Your task to perform on an android device: toggle improve location accuracy Image 0: 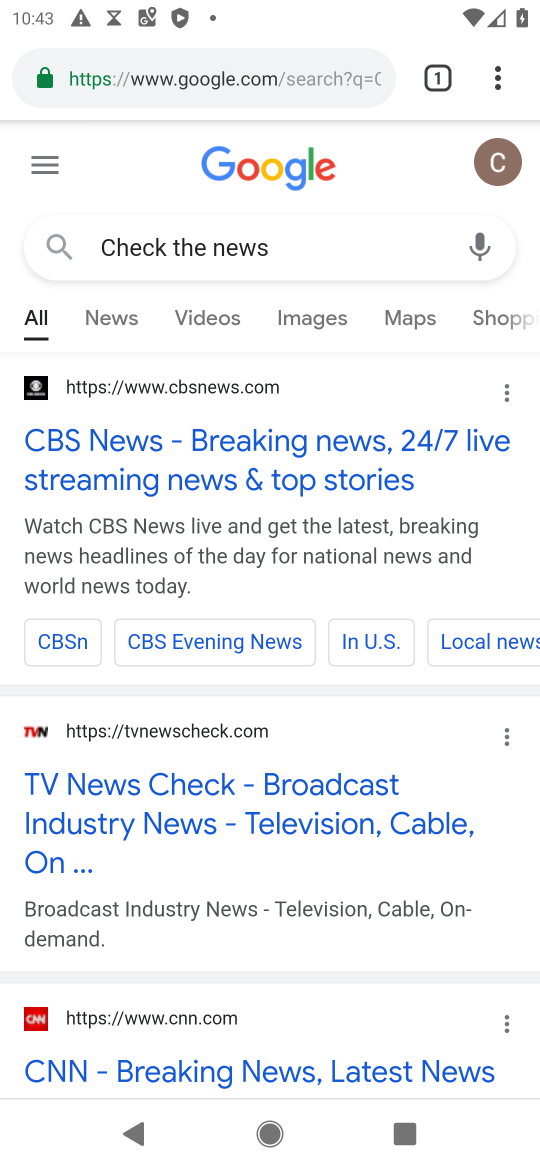
Step 0: press home button
Your task to perform on an android device: toggle improve location accuracy Image 1: 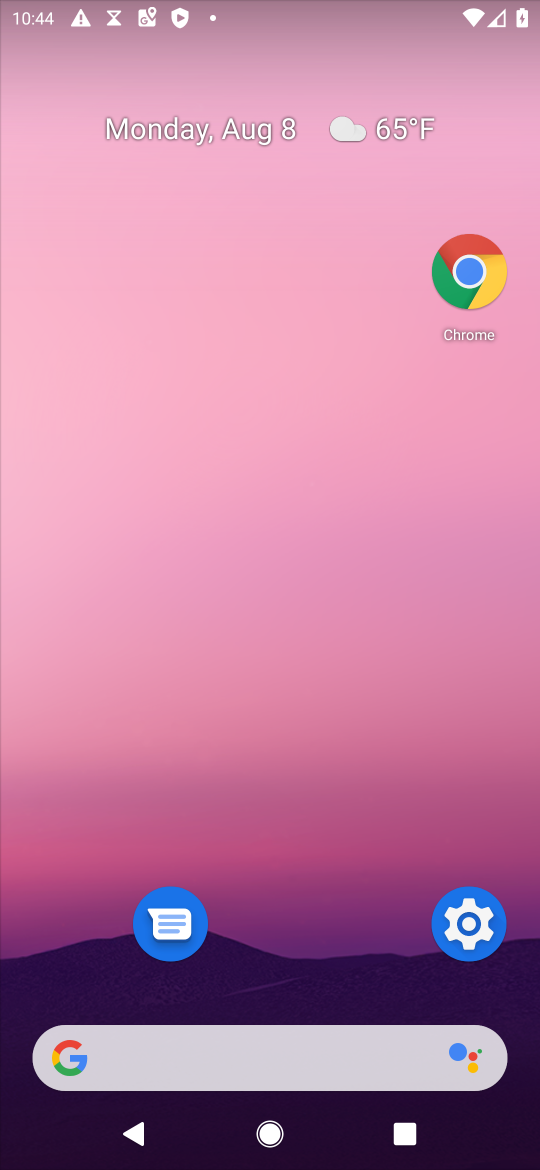
Step 1: drag from (330, 907) to (277, 469)
Your task to perform on an android device: toggle improve location accuracy Image 2: 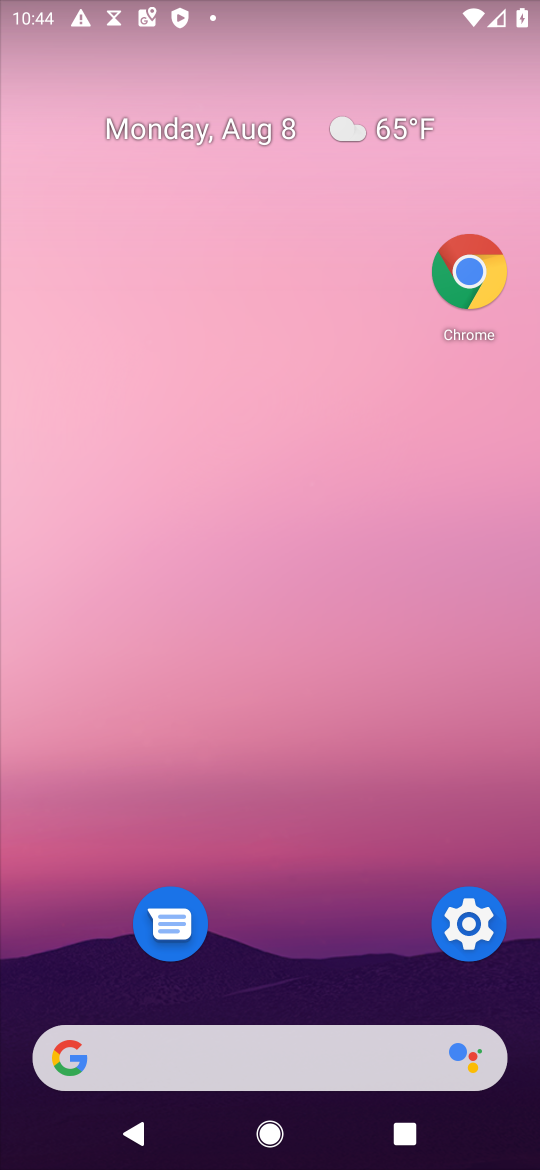
Step 2: drag from (298, 782) to (374, 110)
Your task to perform on an android device: toggle improve location accuracy Image 3: 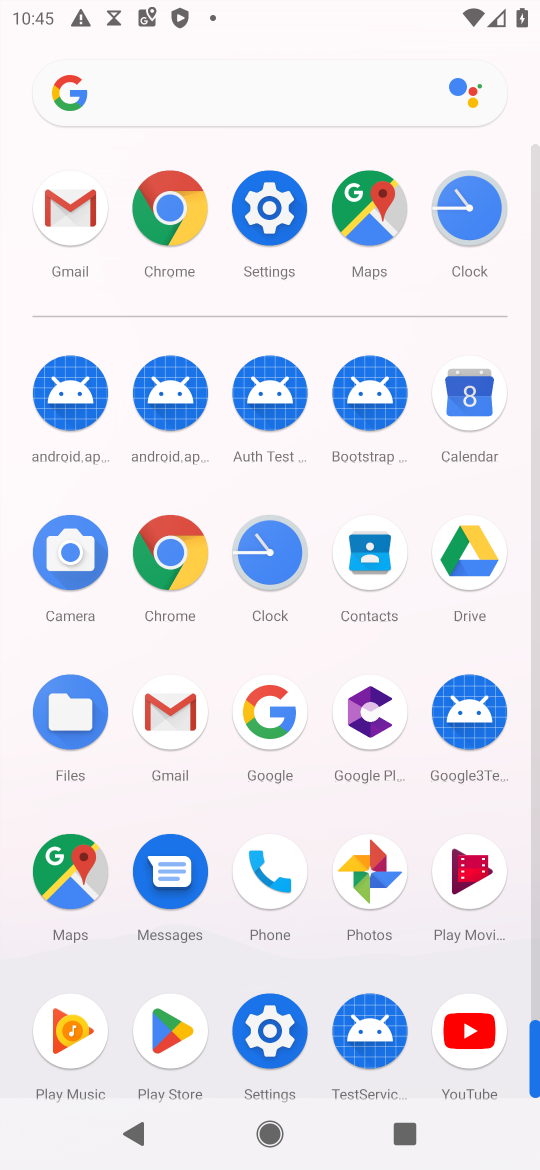
Step 3: click (234, 251)
Your task to perform on an android device: toggle improve location accuracy Image 4: 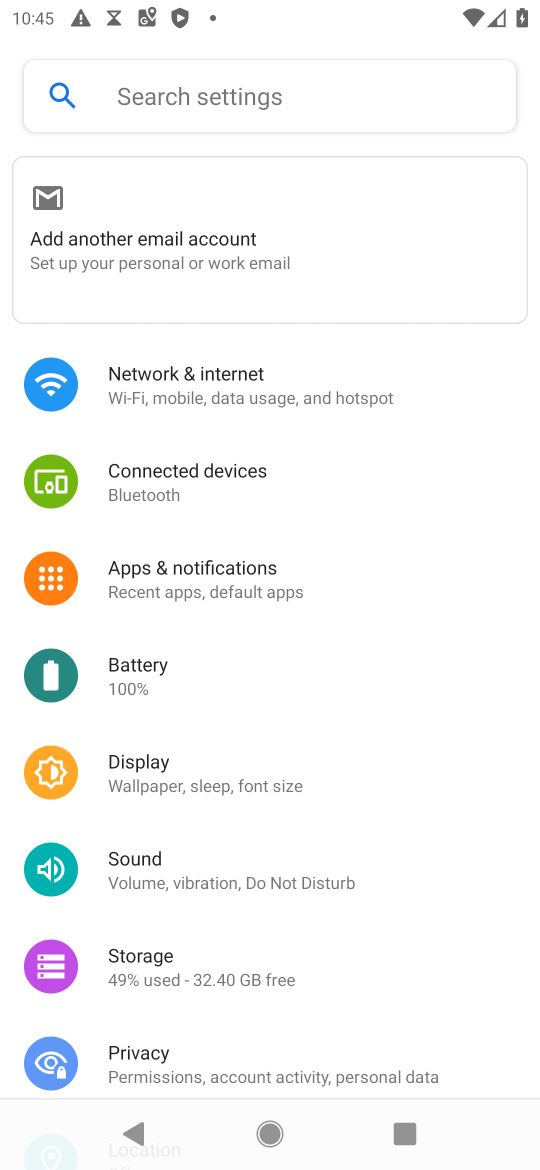
Step 4: drag from (290, 941) to (384, 164)
Your task to perform on an android device: toggle improve location accuracy Image 5: 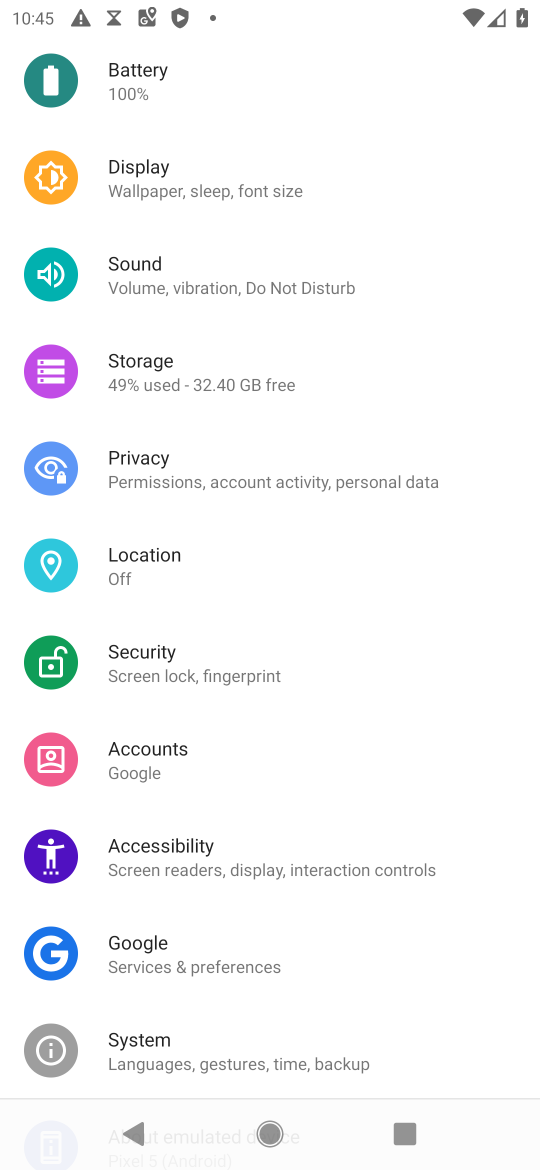
Step 5: click (123, 585)
Your task to perform on an android device: toggle improve location accuracy Image 6: 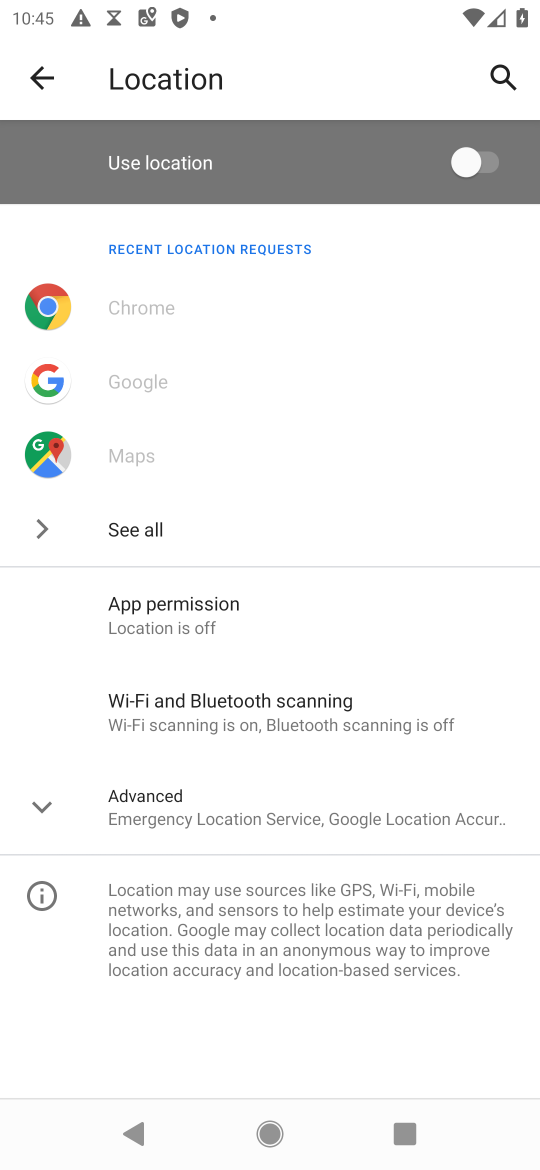
Step 6: click (221, 783)
Your task to perform on an android device: toggle improve location accuracy Image 7: 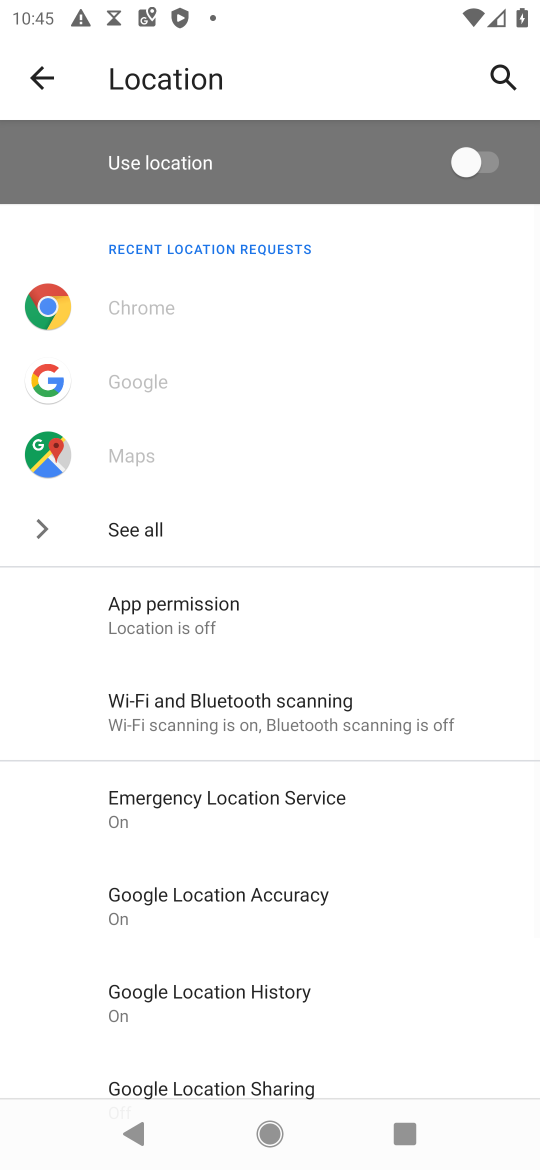
Step 7: click (309, 906)
Your task to perform on an android device: toggle improve location accuracy Image 8: 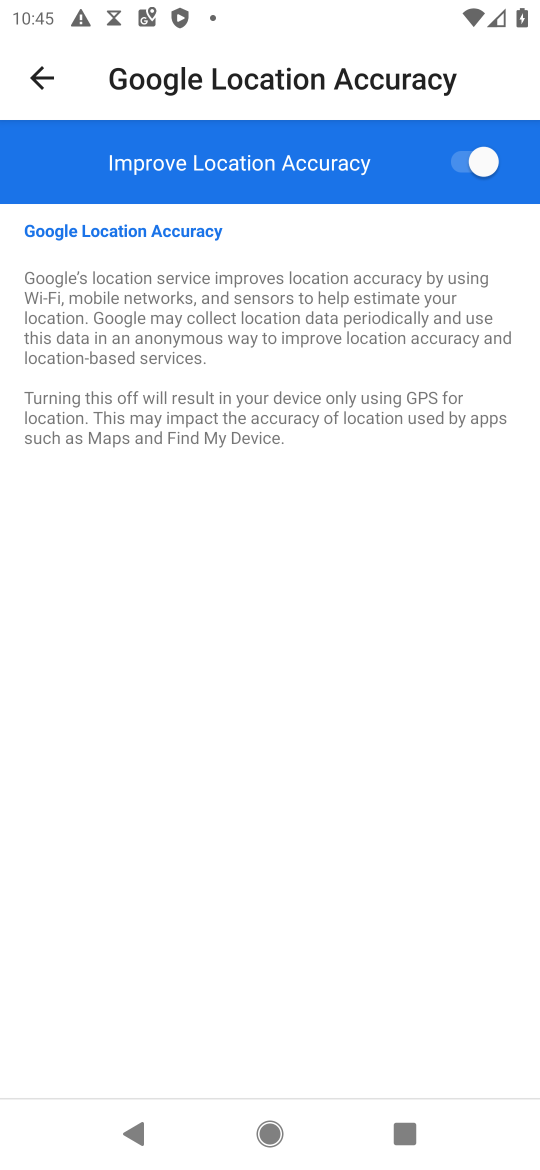
Step 8: click (292, 185)
Your task to perform on an android device: toggle improve location accuracy Image 9: 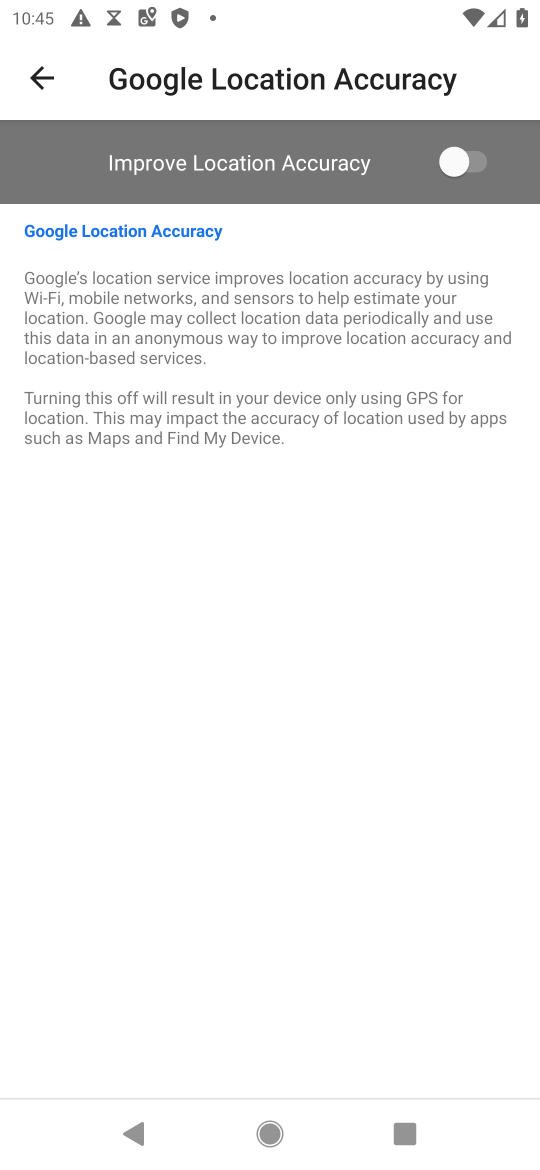
Step 9: task complete